Your task to perform on an android device: change keyboard looks Image 0: 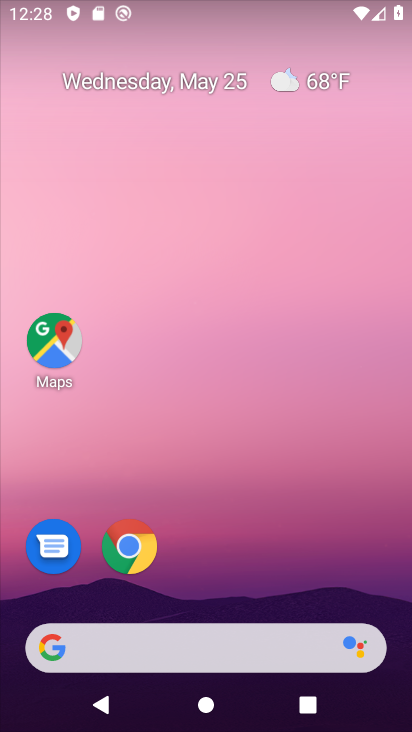
Step 0: drag from (333, 586) to (289, 64)
Your task to perform on an android device: change keyboard looks Image 1: 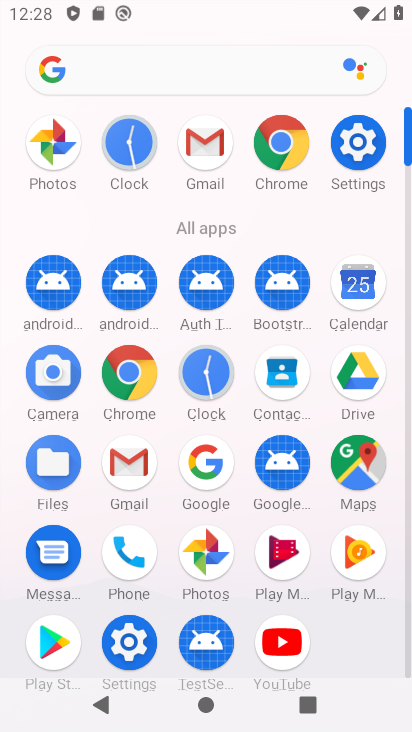
Step 1: click (367, 139)
Your task to perform on an android device: change keyboard looks Image 2: 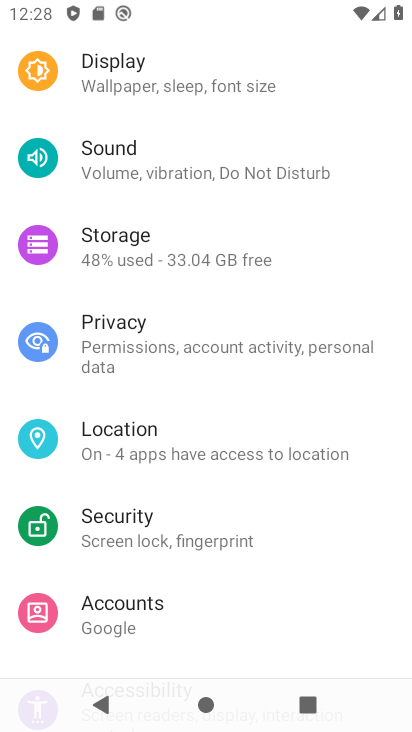
Step 2: drag from (148, 610) to (225, 40)
Your task to perform on an android device: change keyboard looks Image 3: 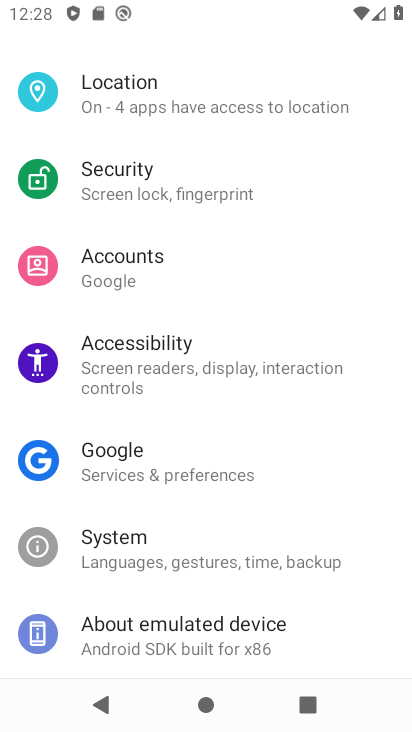
Step 3: click (247, 626)
Your task to perform on an android device: change keyboard looks Image 4: 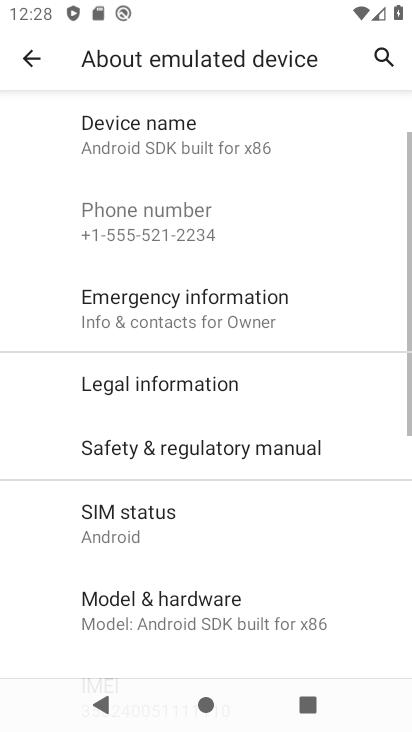
Step 4: click (47, 66)
Your task to perform on an android device: change keyboard looks Image 5: 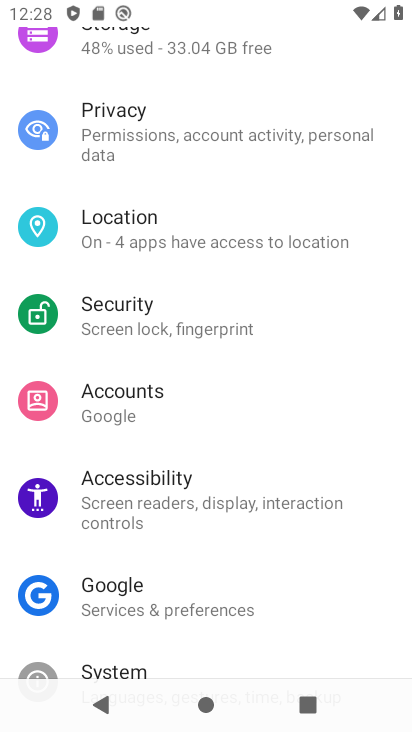
Step 5: click (168, 664)
Your task to perform on an android device: change keyboard looks Image 6: 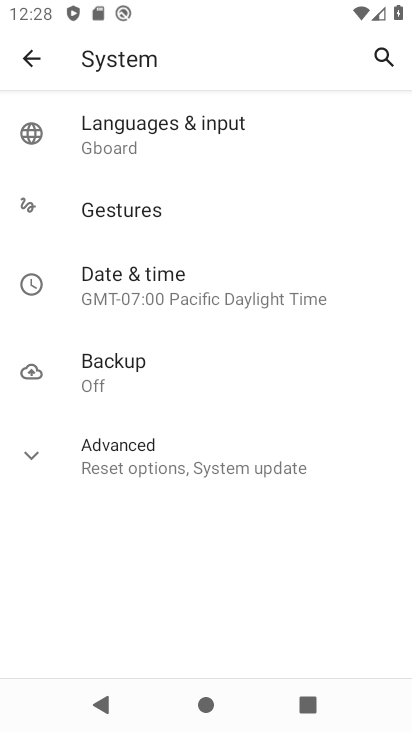
Step 6: click (140, 155)
Your task to perform on an android device: change keyboard looks Image 7: 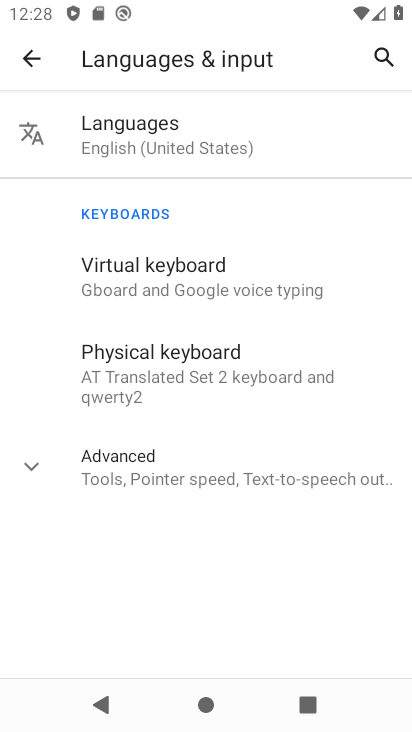
Step 7: click (166, 271)
Your task to perform on an android device: change keyboard looks Image 8: 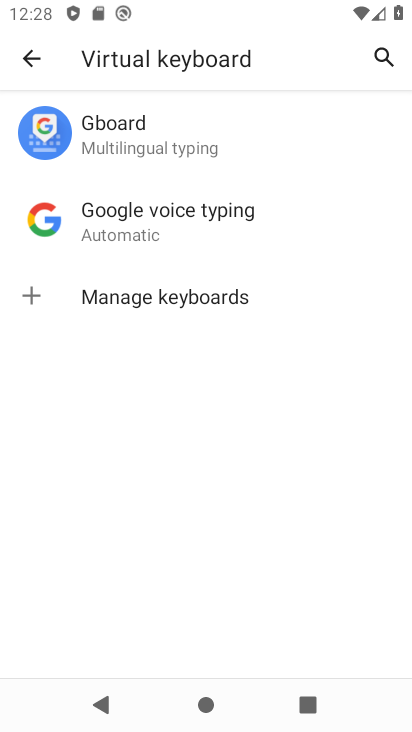
Step 8: click (162, 124)
Your task to perform on an android device: change keyboard looks Image 9: 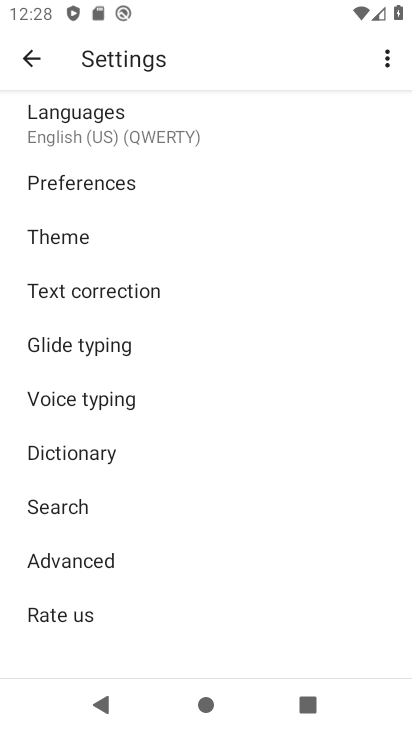
Step 9: click (133, 235)
Your task to perform on an android device: change keyboard looks Image 10: 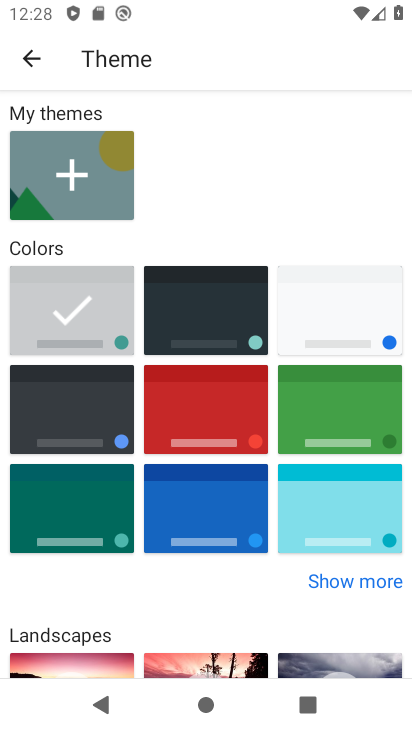
Step 10: click (247, 296)
Your task to perform on an android device: change keyboard looks Image 11: 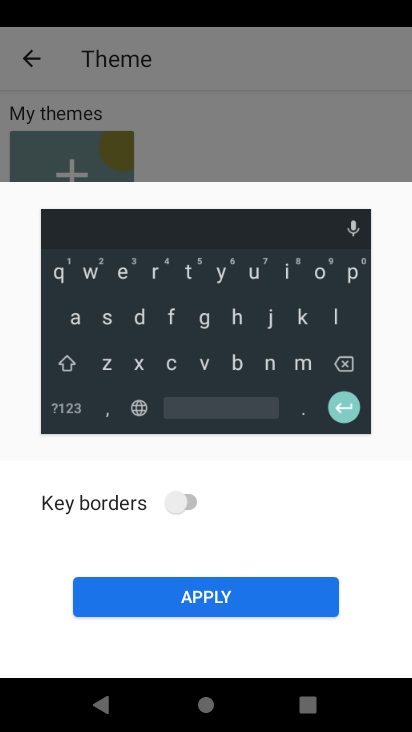
Step 11: click (215, 590)
Your task to perform on an android device: change keyboard looks Image 12: 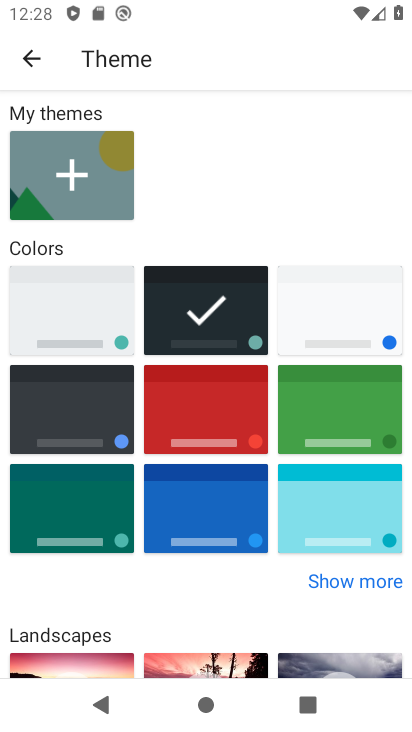
Step 12: task complete